Your task to perform on an android device: toggle airplane mode Image 0: 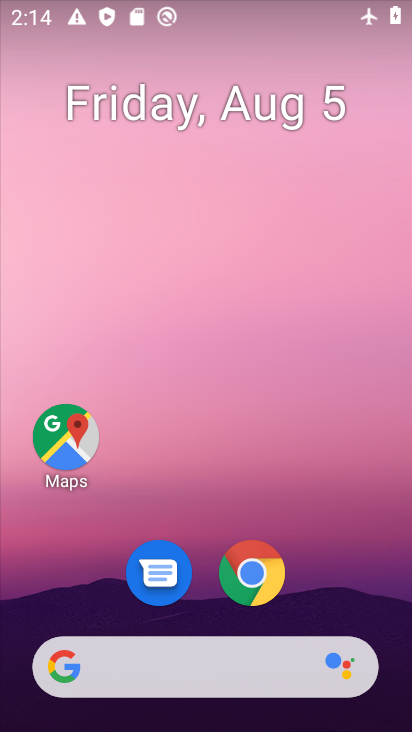
Step 0: drag from (361, 554) to (283, 82)
Your task to perform on an android device: toggle airplane mode Image 1: 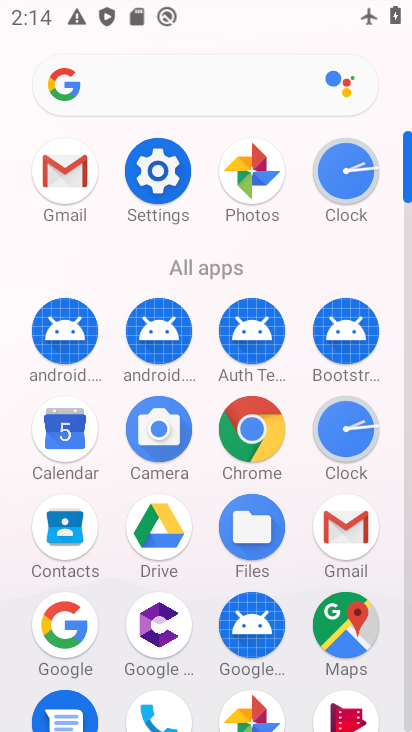
Step 1: click (151, 188)
Your task to perform on an android device: toggle airplane mode Image 2: 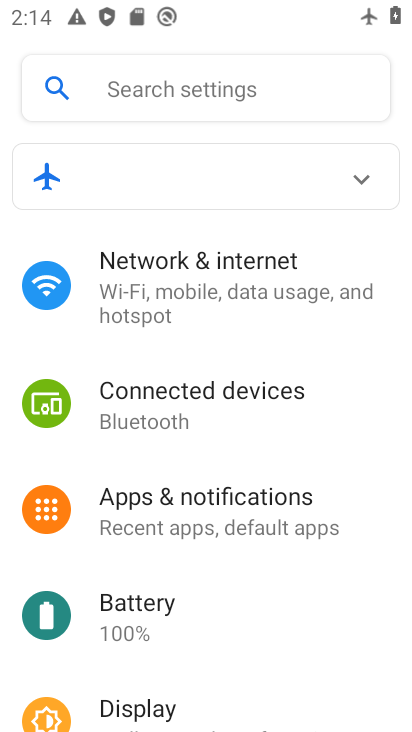
Step 2: click (218, 265)
Your task to perform on an android device: toggle airplane mode Image 3: 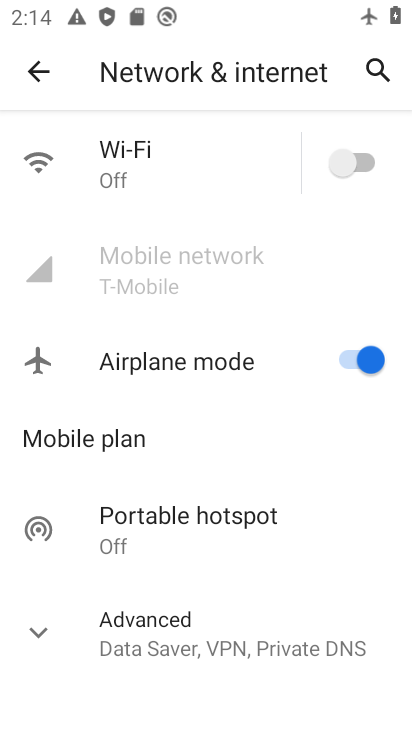
Step 3: click (358, 364)
Your task to perform on an android device: toggle airplane mode Image 4: 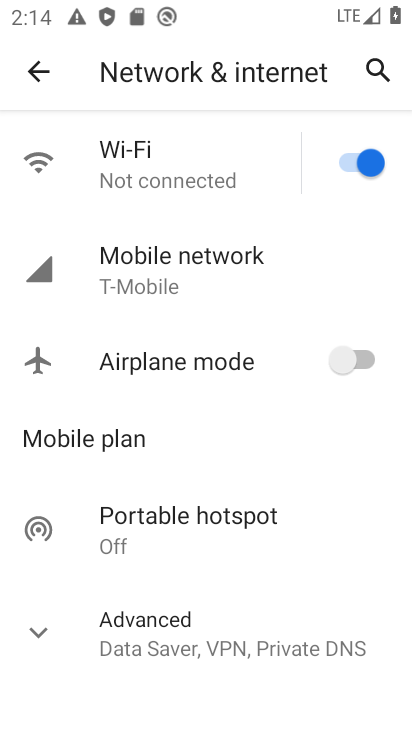
Step 4: task complete